Your task to perform on an android device: turn on notifications settings in the gmail app Image 0: 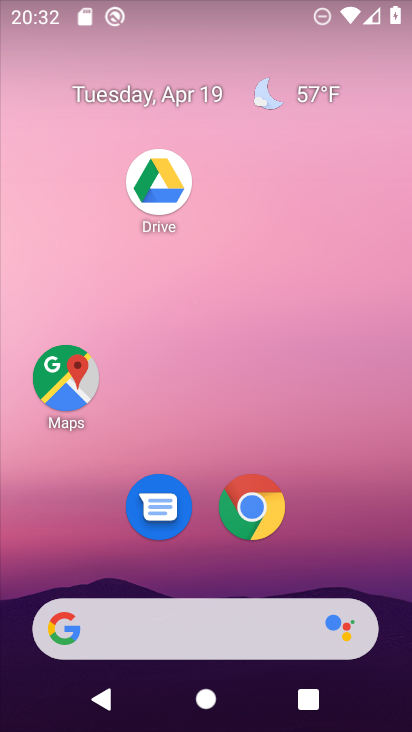
Step 0: drag from (376, 519) to (343, 129)
Your task to perform on an android device: turn on notifications settings in the gmail app Image 1: 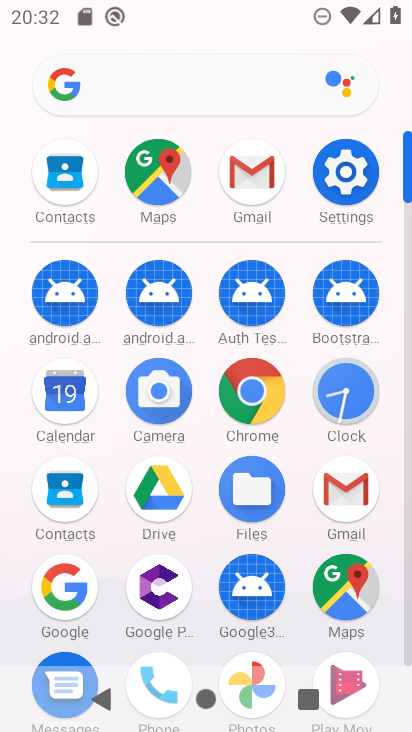
Step 1: click (249, 172)
Your task to perform on an android device: turn on notifications settings in the gmail app Image 2: 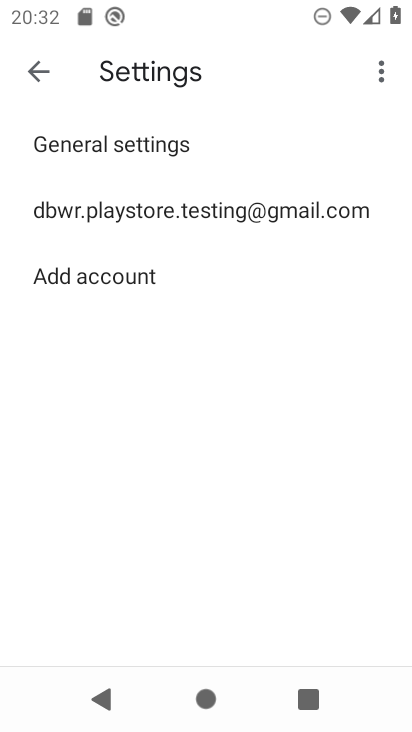
Step 2: click (248, 209)
Your task to perform on an android device: turn on notifications settings in the gmail app Image 3: 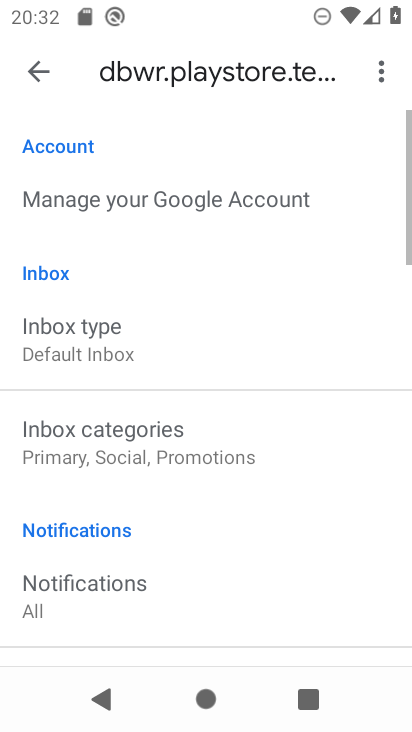
Step 3: drag from (278, 575) to (266, 157)
Your task to perform on an android device: turn on notifications settings in the gmail app Image 4: 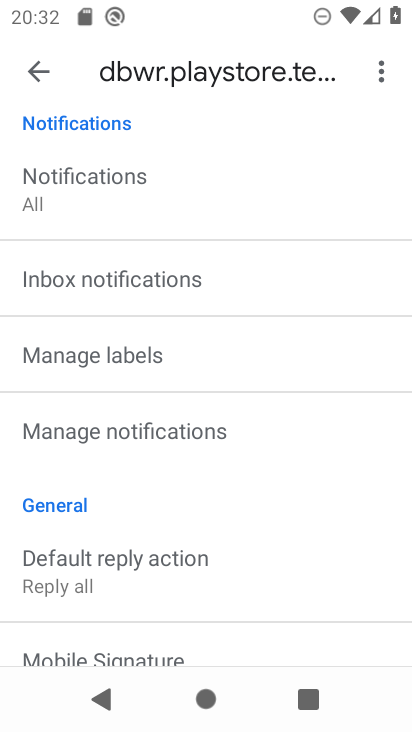
Step 4: click (210, 423)
Your task to perform on an android device: turn on notifications settings in the gmail app Image 5: 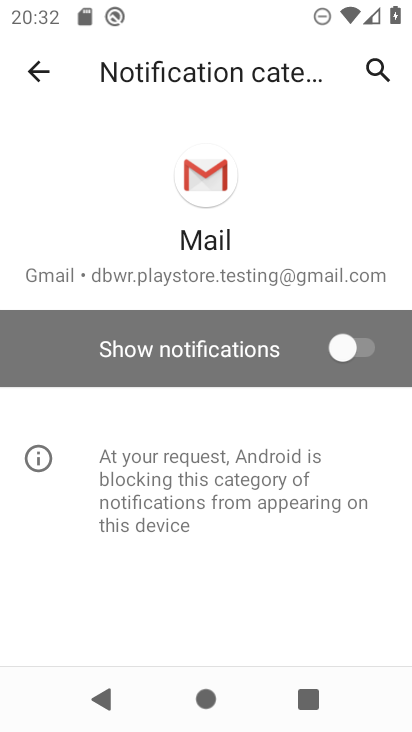
Step 5: click (351, 336)
Your task to perform on an android device: turn on notifications settings in the gmail app Image 6: 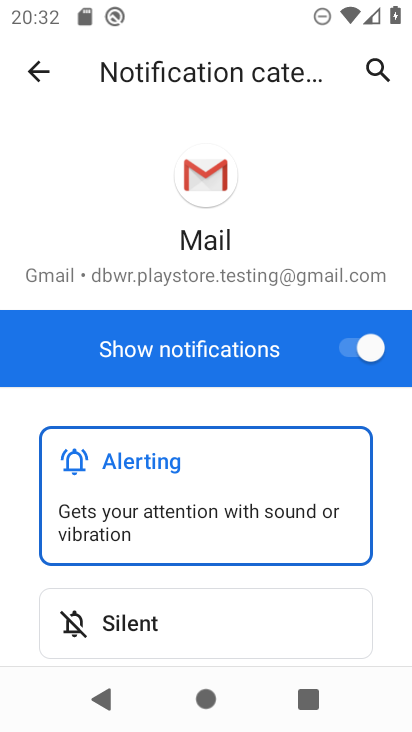
Step 6: task complete